Your task to perform on an android device: turn on notifications settings in the gmail app Image 0: 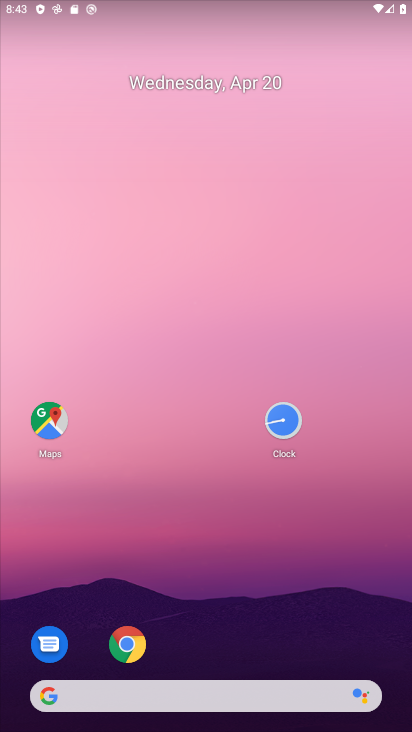
Step 0: drag from (319, 685) to (239, 0)
Your task to perform on an android device: turn on notifications settings in the gmail app Image 1: 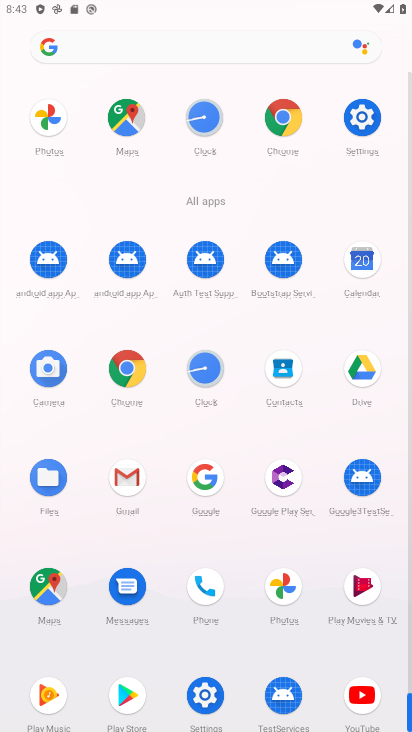
Step 1: click (121, 479)
Your task to perform on an android device: turn on notifications settings in the gmail app Image 2: 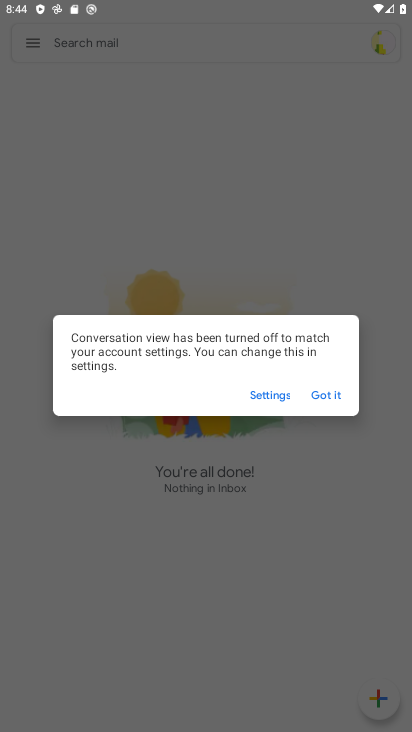
Step 2: press home button
Your task to perform on an android device: turn on notifications settings in the gmail app Image 3: 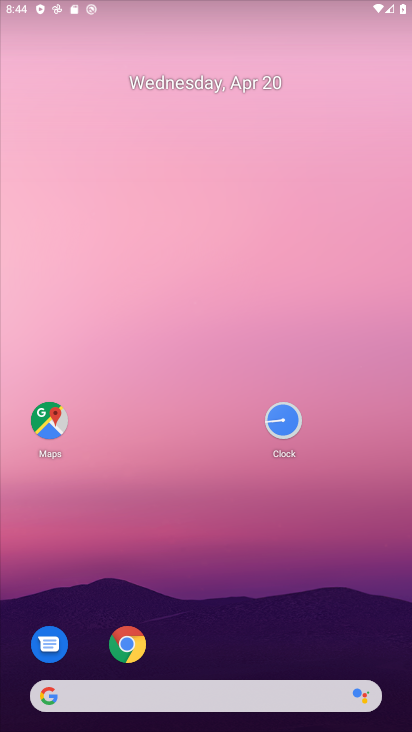
Step 3: drag from (217, 731) to (240, 59)
Your task to perform on an android device: turn on notifications settings in the gmail app Image 4: 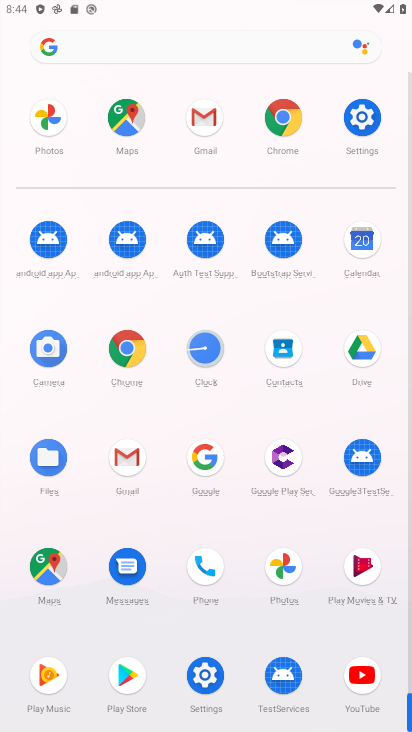
Step 4: click (141, 465)
Your task to perform on an android device: turn on notifications settings in the gmail app Image 5: 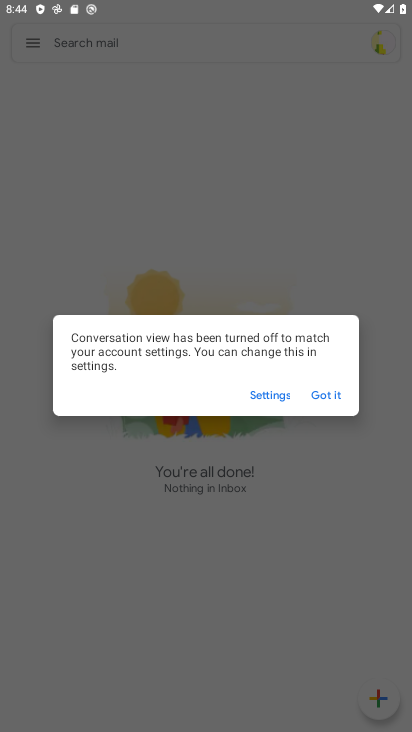
Step 5: click (324, 394)
Your task to perform on an android device: turn on notifications settings in the gmail app Image 6: 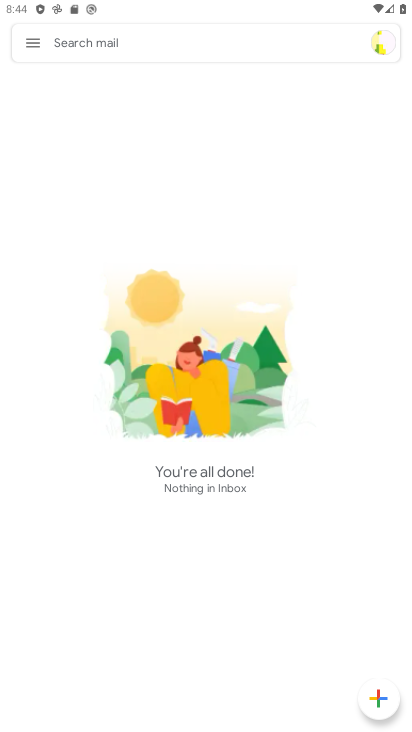
Step 6: click (34, 48)
Your task to perform on an android device: turn on notifications settings in the gmail app Image 7: 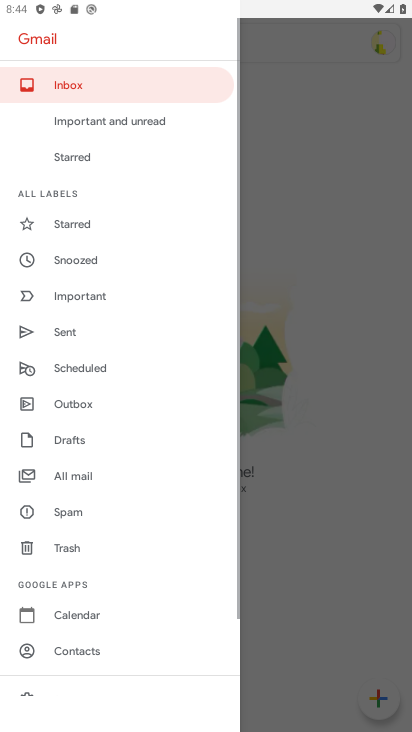
Step 7: drag from (135, 625) to (170, 264)
Your task to perform on an android device: turn on notifications settings in the gmail app Image 8: 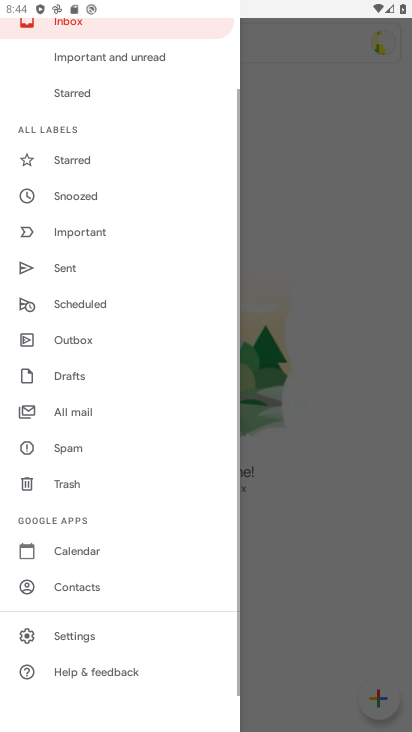
Step 8: click (133, 639)
Your task to perform on an android device: turn on notifications settings in the gmail app Image 9: 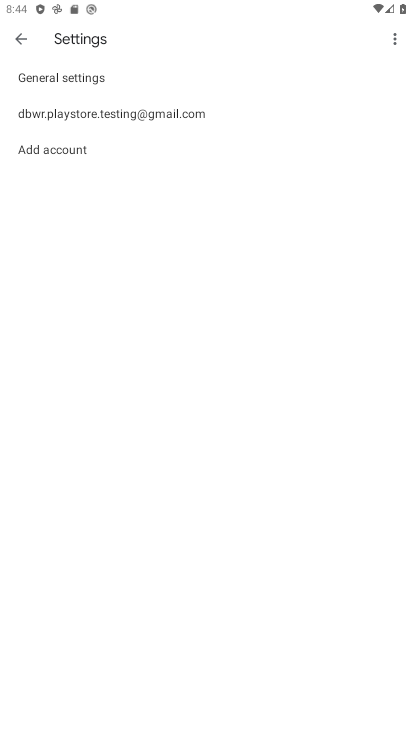
Step 9: click (84, 109)
Your task to perform on an android device: turn on notifications settings in the gmail app Image 10: 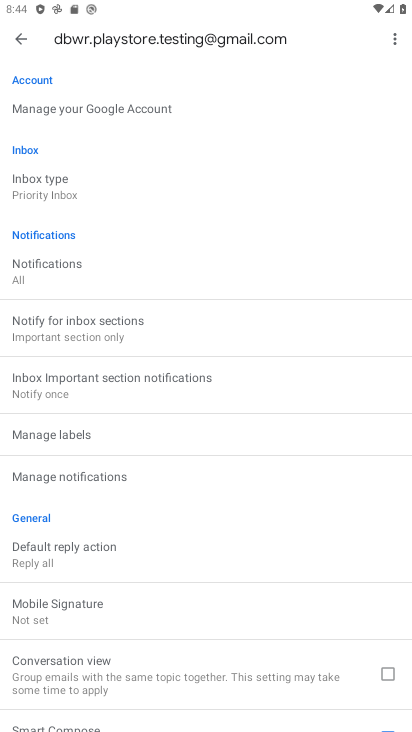
Step 10: click (114, 480)
Your task to perform on an android device: turn on notifications settings in the gmail app Image 11: 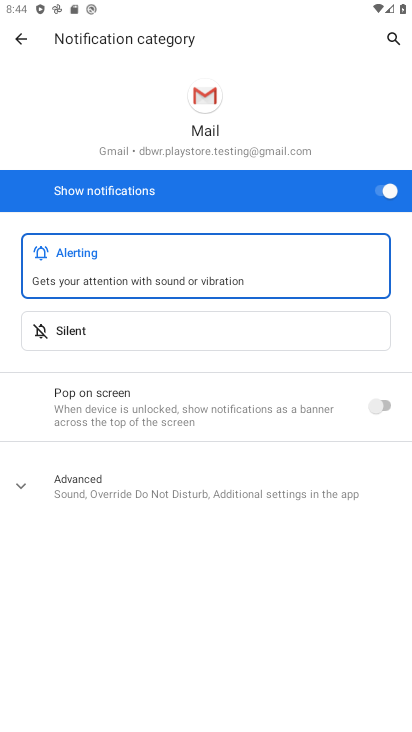
Step 11: task complete